Your task to perform on an android device: Go to Google maps Image 0: 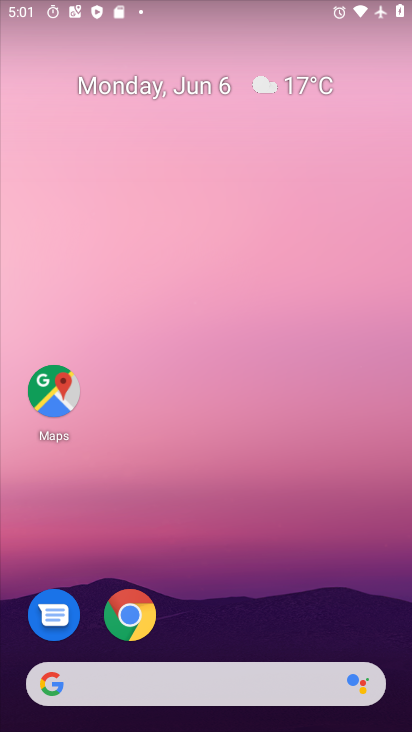
Step 0: drag from (196, 507) to (175, 56)
Your task to perform on an android device: Go to Google maps Image 1: 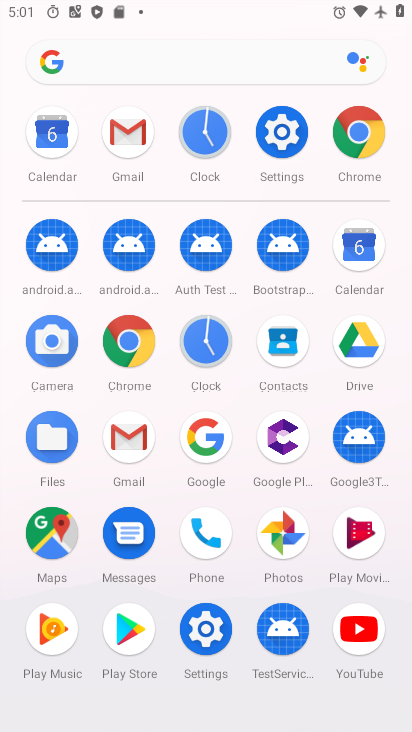
Step 1: click (53, 529)
Your task to perform on an android device: Go to Google maps Image 2: 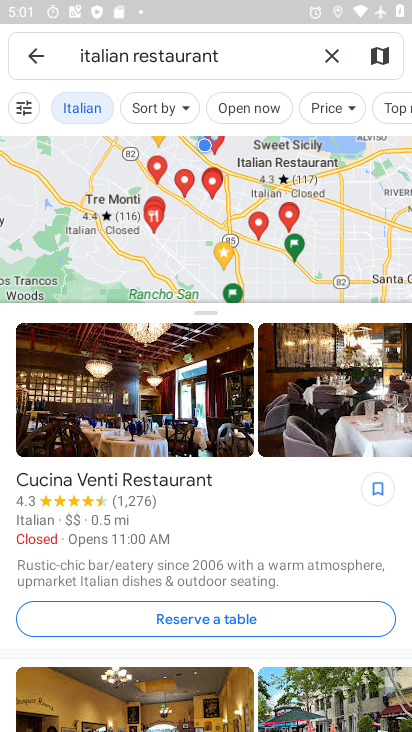
Step 2: click (38, 54)
Your task to perform on an android device: Go to Google maps Image 3: 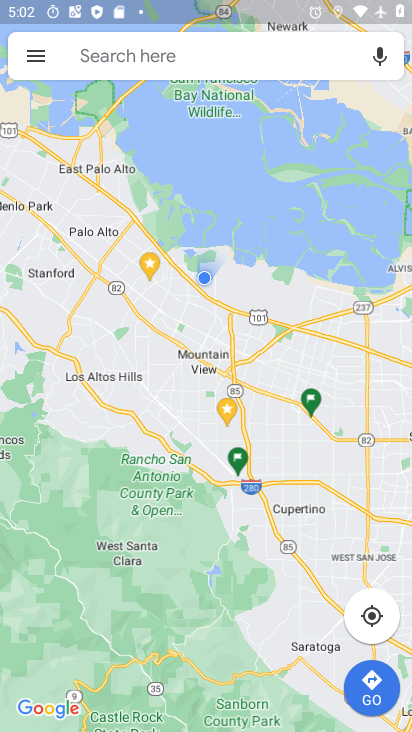
Step 3: task complete